Your task to perform on an android device: Show me recent news Image 0: 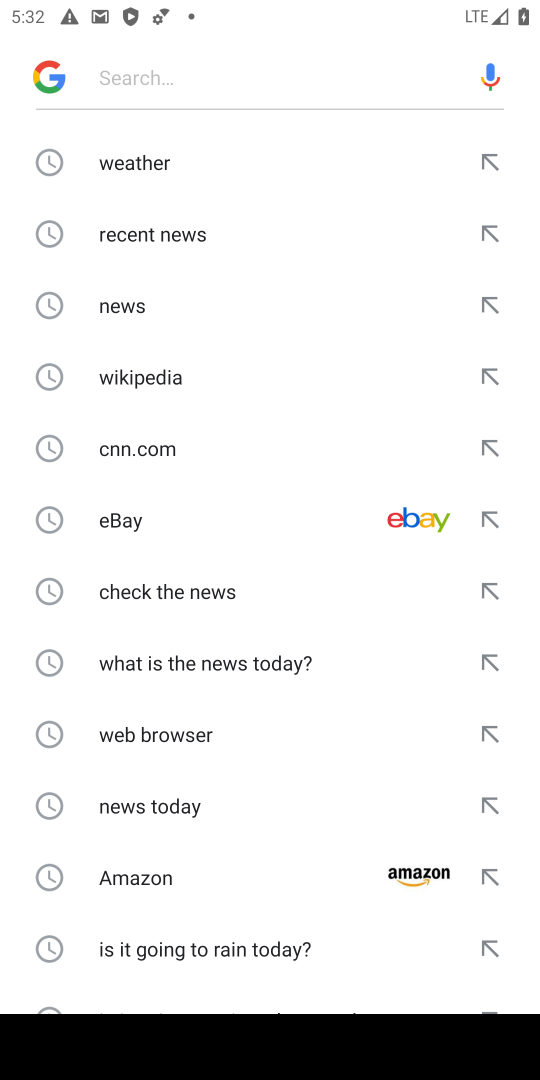
Step 0: click (195, 239)
Your task to perform on an android device: Show me recent news Image 1: 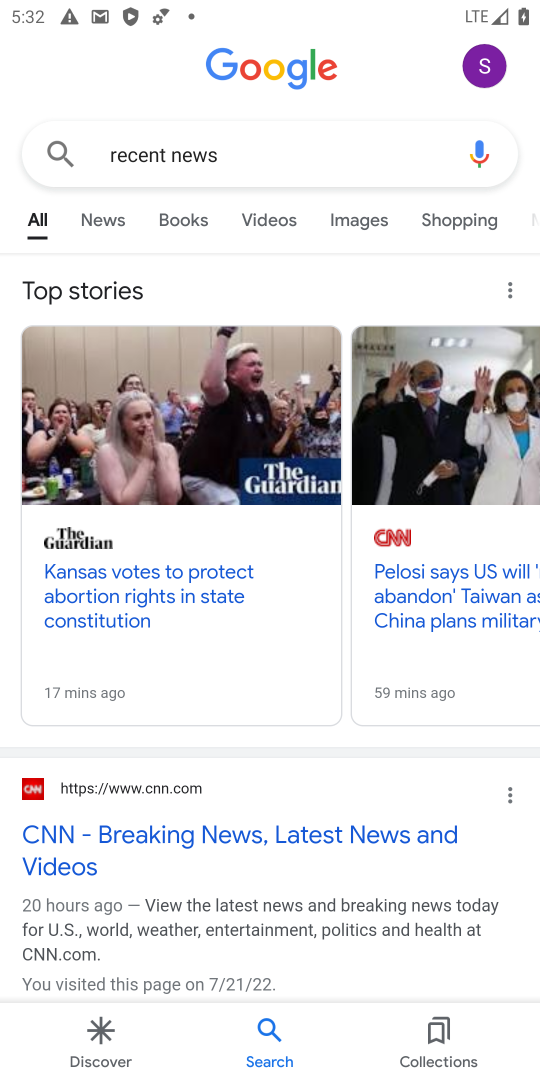
Step 1: task complete